Your task to perform on an android device: open sync settings in chrome Image 0: 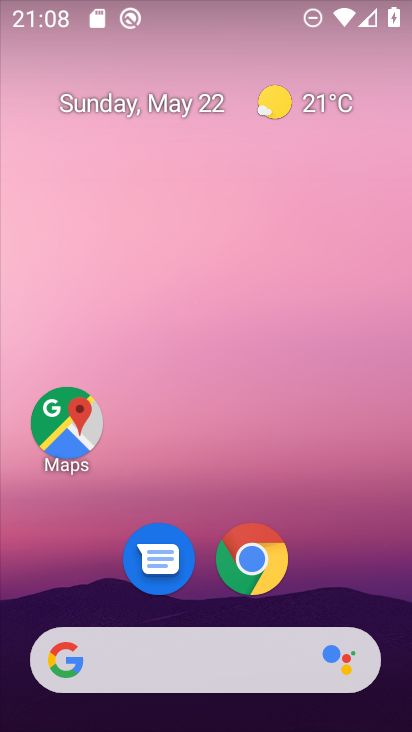
Step 0: drag from (330, 659) to (270, 191)
Your task to perform on an android device: open sync settings in chrome Image 1: 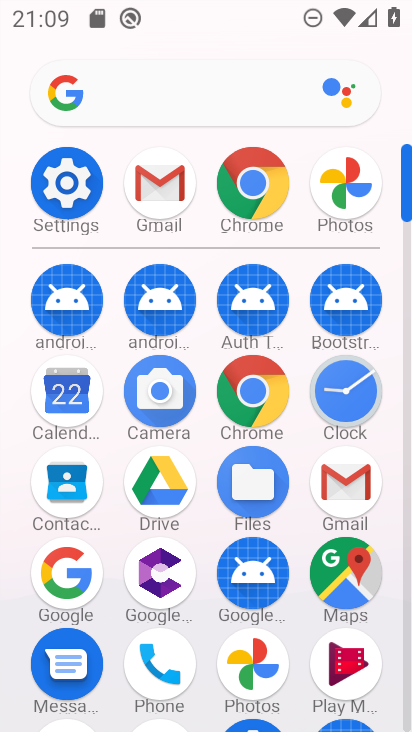
Step 1: click (257, 187)
Your task to perform on an android device: open sync settings in chrome Image 2: 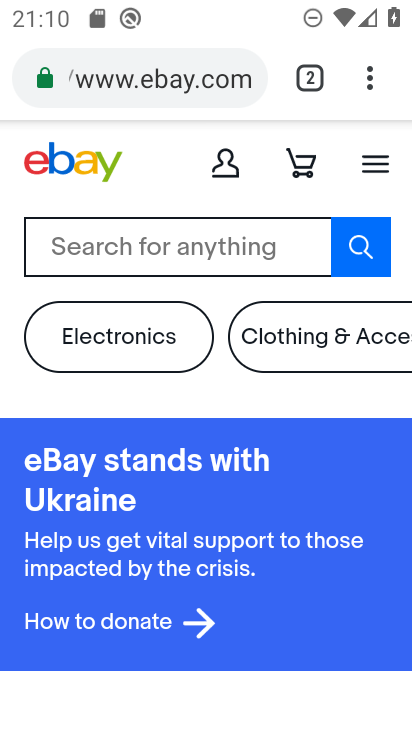
Step 2: click (363, 76)
Your task to perform on an android device: open sync settings in chrome Image 3: 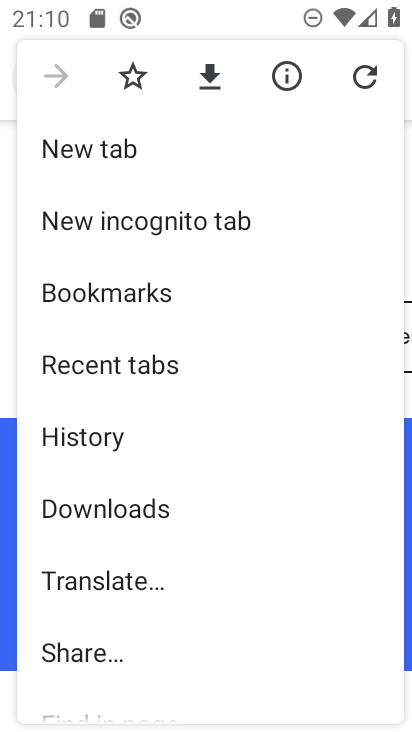
Step 3: drag from (82, 556) to (68, 268)
Your task to perform on an android device: open sync settings in chrome Image 4: 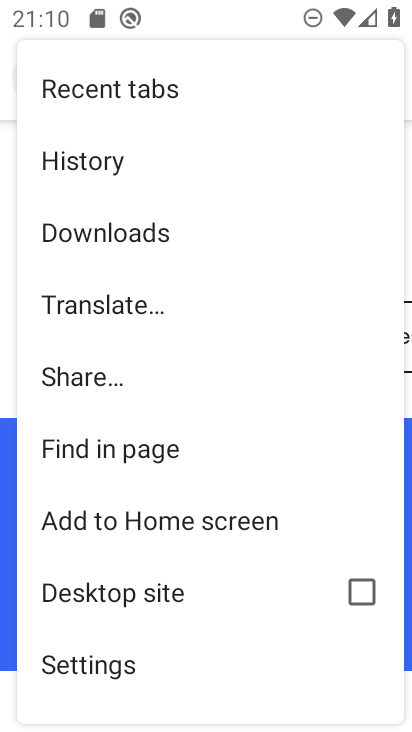
Step 4: click (146, 673)
Your task to perform on an android device: open sync settings in chrome Image 5: 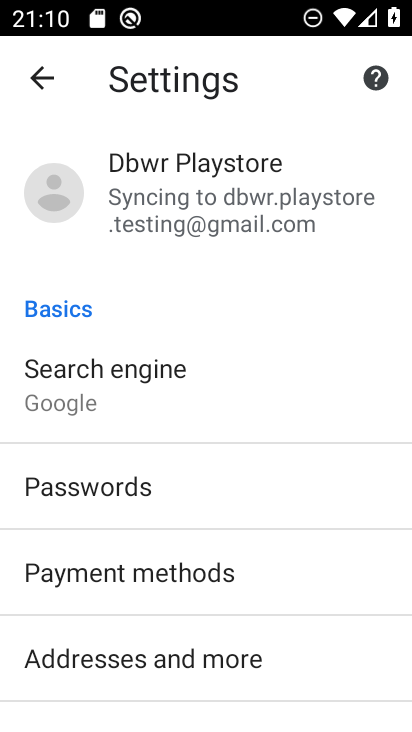
Step 5: drag from (134, 678) to (196, 283)
Your task to perform on an android device: open sync settings in chrome Image 6: 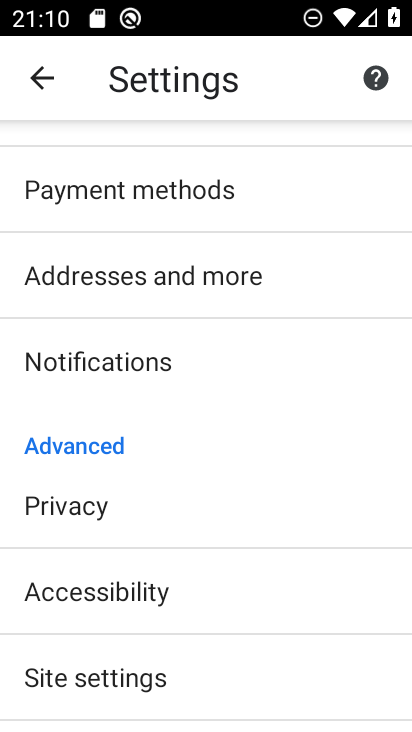
Step 6: drag from (166, 628) to (156, 549)
Your task to perform on an android device: open sync settings in chrome Image 7: 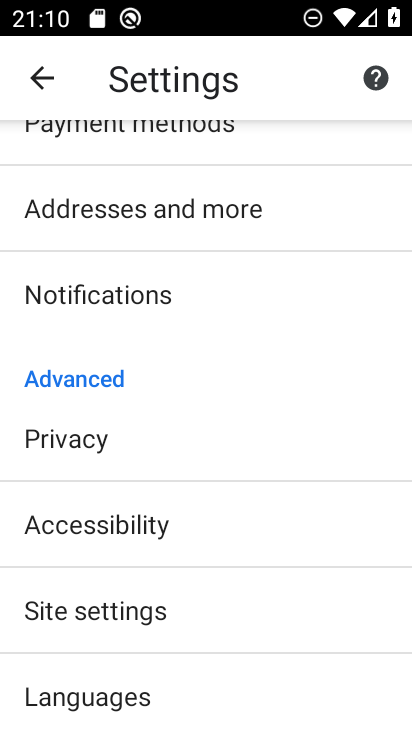
Step 7: click (151, 597)
Your task to perform on an android device: open sync settings in chrome Image 8: 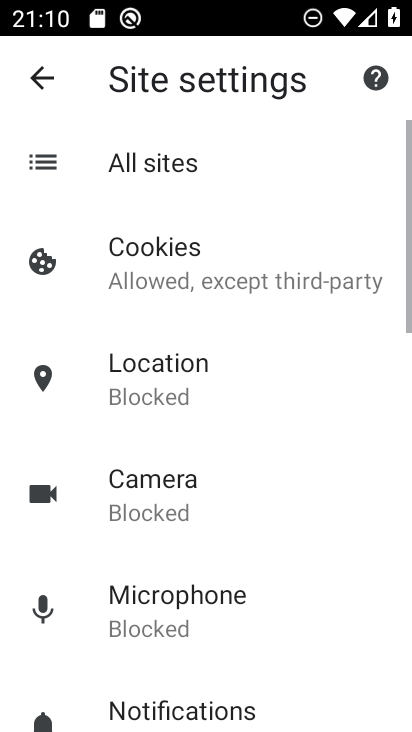
Step 8: drag from (209, 650) to (295, 245)
Your task to perform on an android device: open sync settings in chrome Image 9: 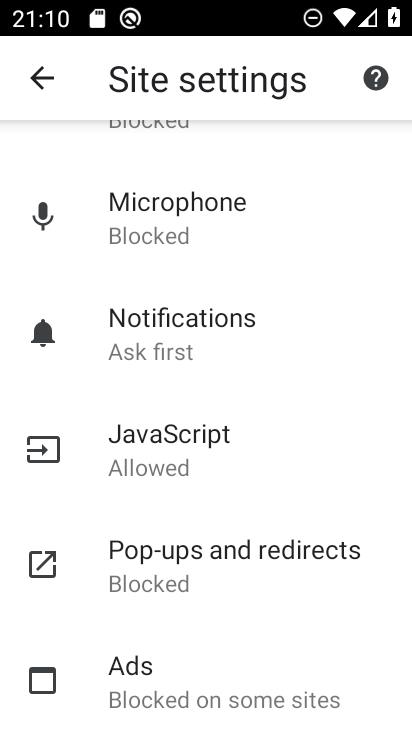
Step 9: drag from (231, 635) to (303, 276)
Your task to perform on an android device: open sync settings in chrome Image 10: 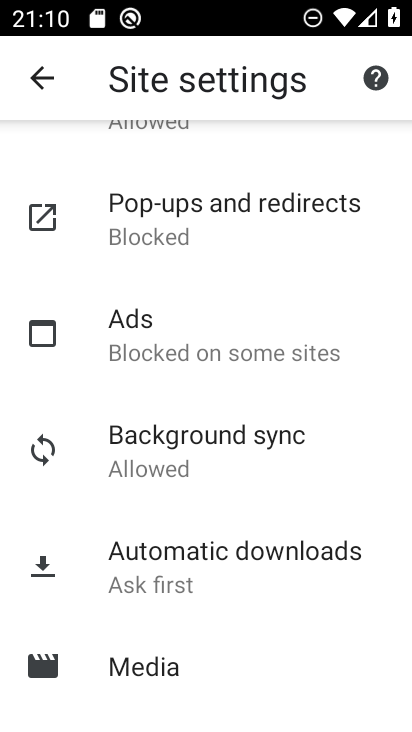
Step 10: click (199, 406)
Your task to perform on an android device: open sync settings in chrome Image 11: 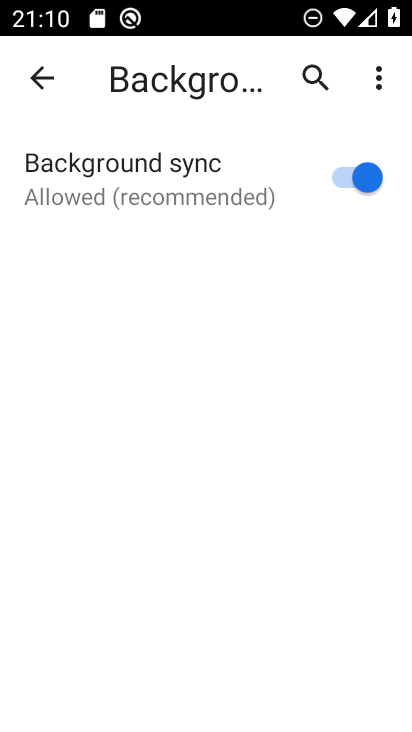
Step 11: task complete